Your task to perform on an android device: refresh tabs in the chrome app Image 0: 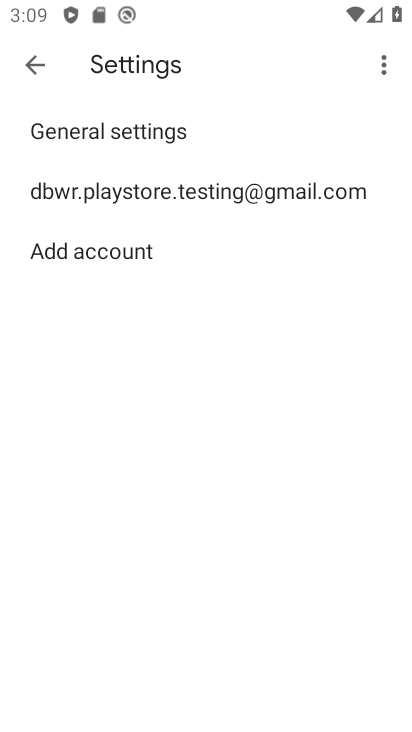
Step 0: press home button
Your task to perform on an android device: refresh tabs in the chrome app Image 1: 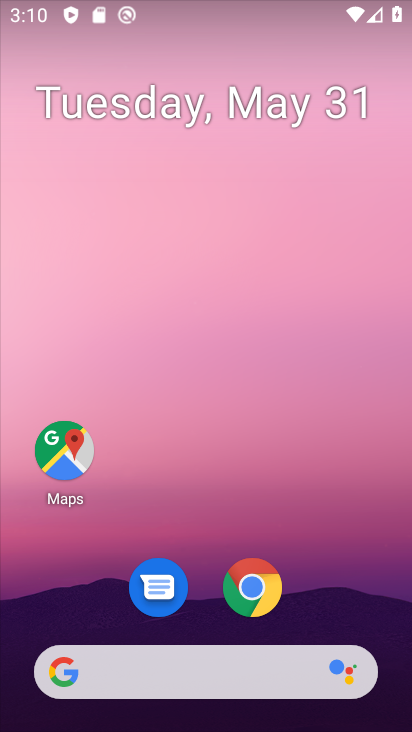
Step 1: click (259, 580)
Your task to perform on an android device: refresh tabs in the chrome app Image 2: 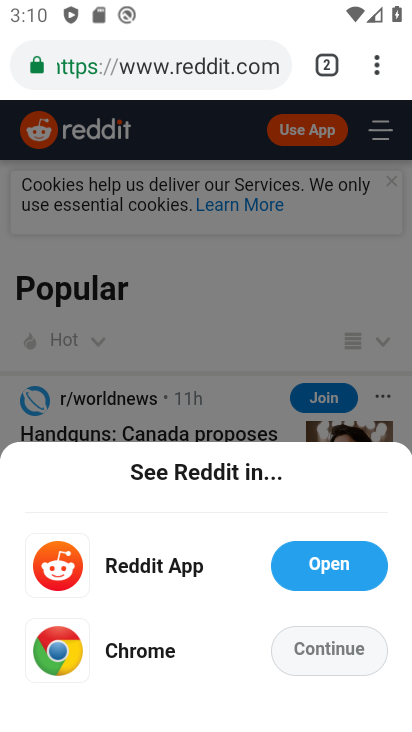
Step 2: click (377, 70)
Your task to perform on an android device: refresh tabs in the chrome app Image 3: 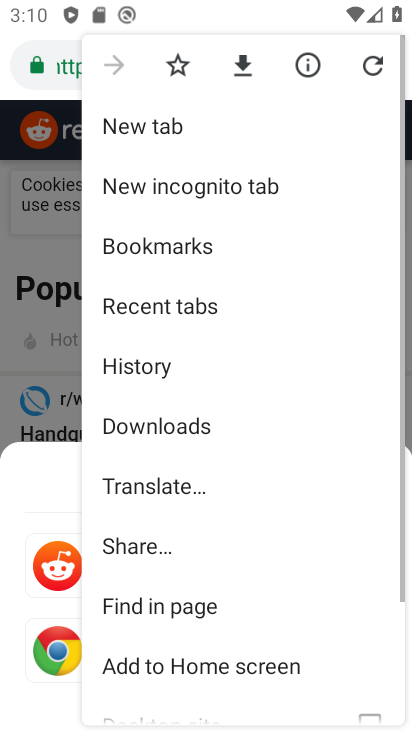
Step 3: click (374, 69)
Your task to perform on an android device: refresh tabs in the chrome app Image 4: 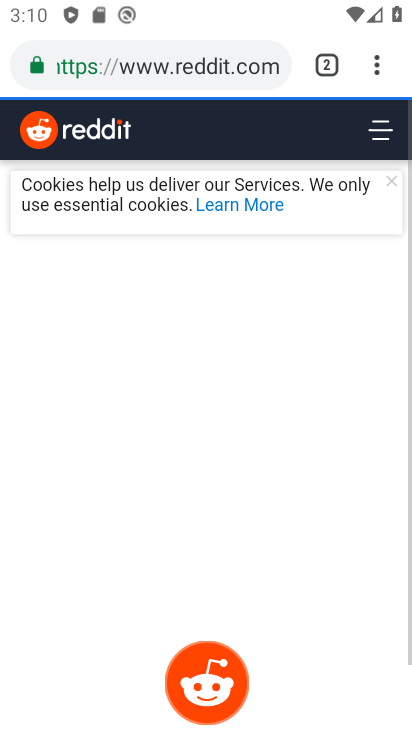
Step 4: click (322, 66)
Your task to perform on an android device: refresh tabs in the chrome app Image 5: 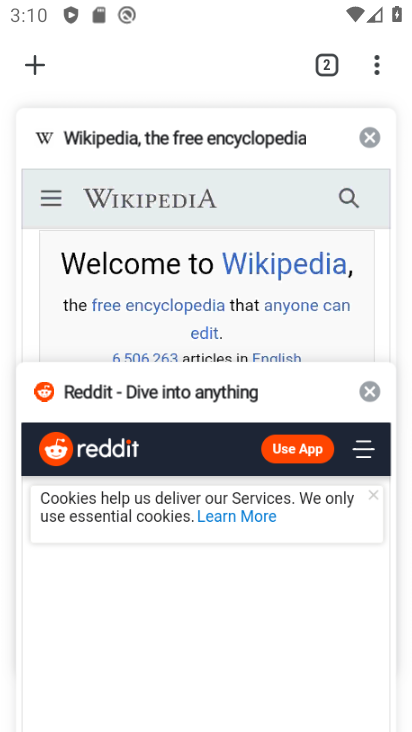
Step 5: click (198, 193)
Your task to perform on an android device: refresh tabs in the chrome app Image 6: 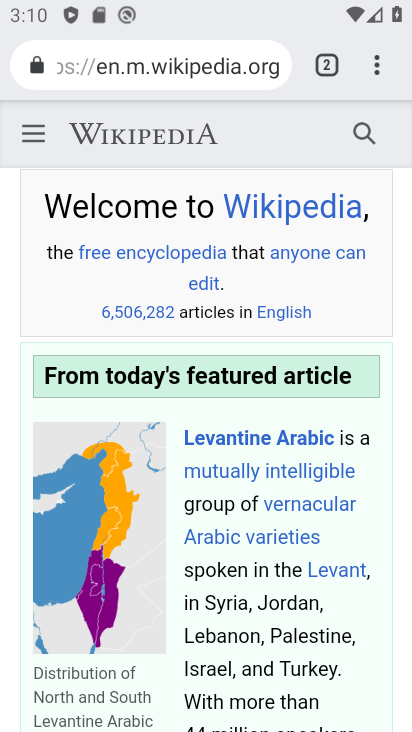
Step 6: click (375, 62)
Your task to perform on an android device: refresh tabs in the chrome app Image 7: 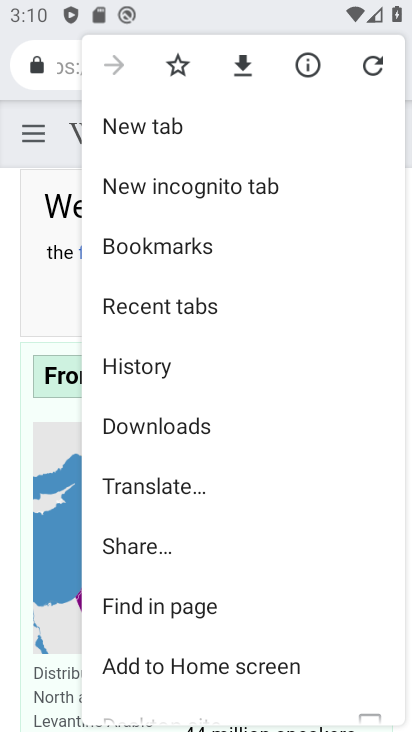
Step 7: click (365, 63)
Your task to perform on an android device: refresh tabs in the chrome app Image 8: 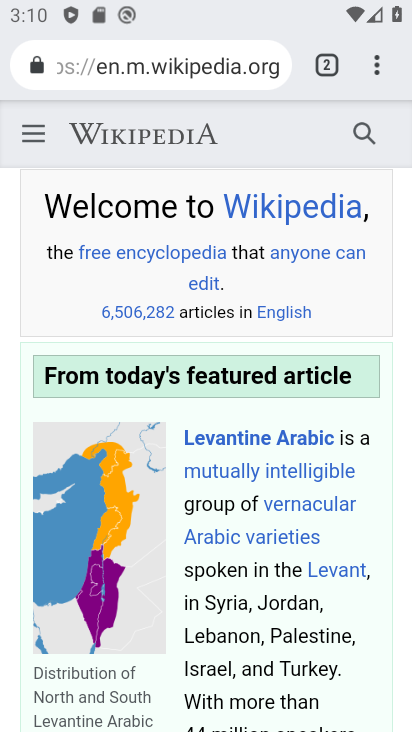
Step 8: task complete